Your task to perform on an android device: find snoozed emails in the gmail app Image 0: 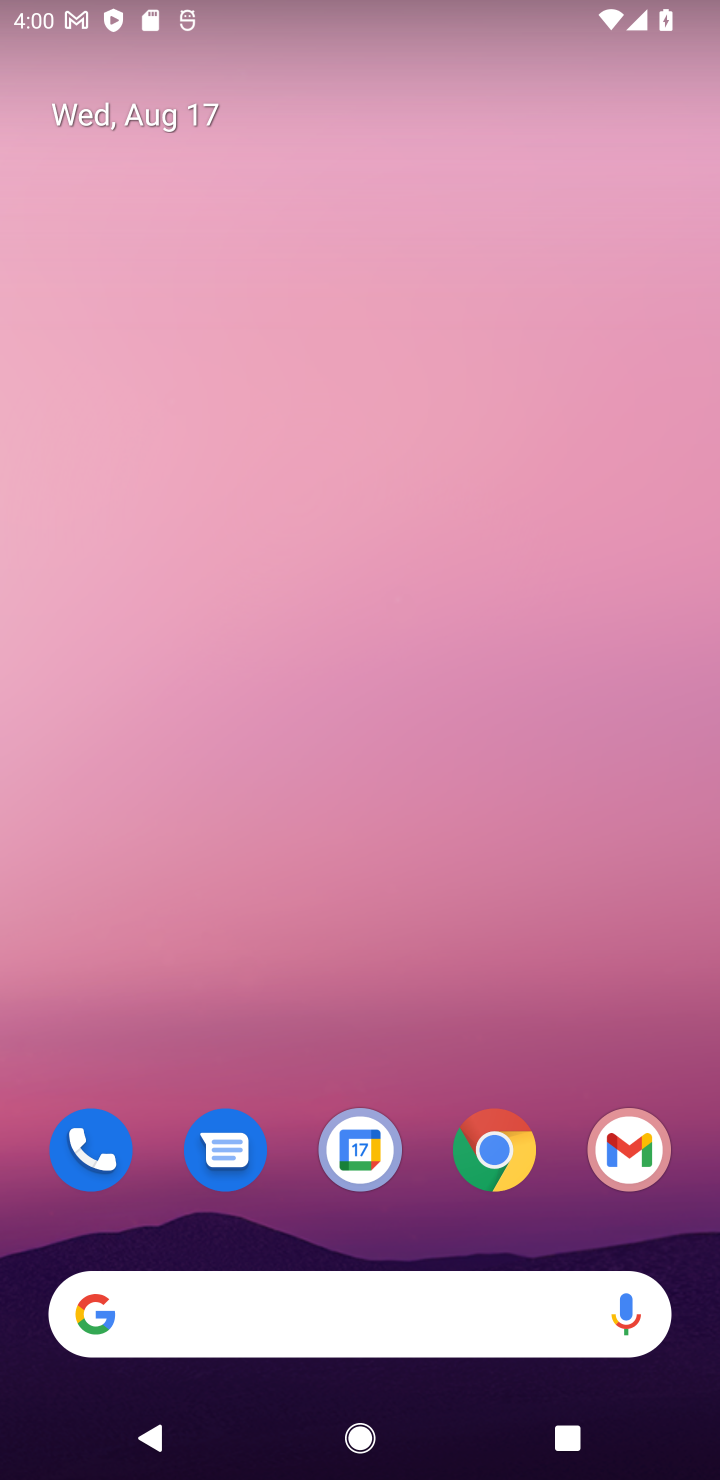
Step 0: drag from (601, 1227) to (334, 23)
Your task to perform on an android device: find snoozed emails in the gmail app Image 1: 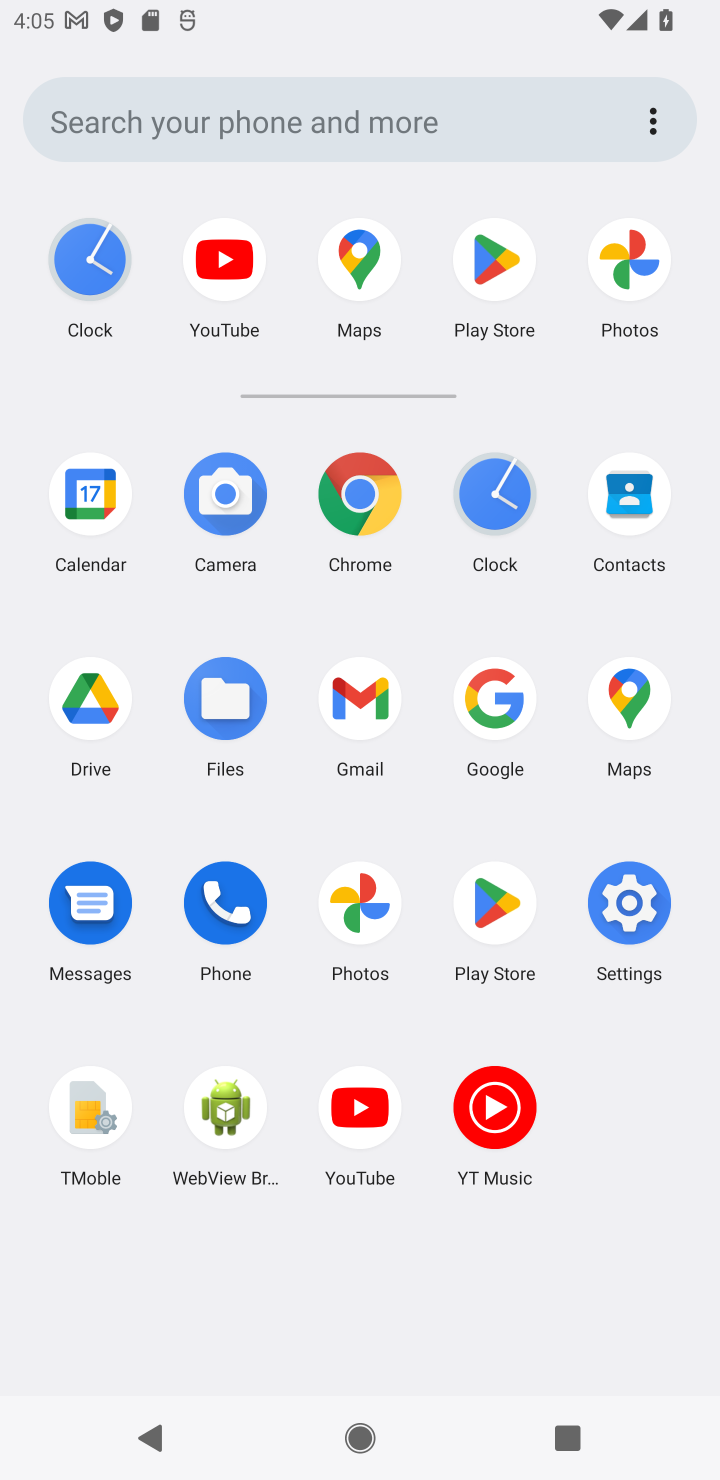
Step 1: click (378, 693)
Your task to perform on an android device: find snoozed emails in the gmail app Image 2: 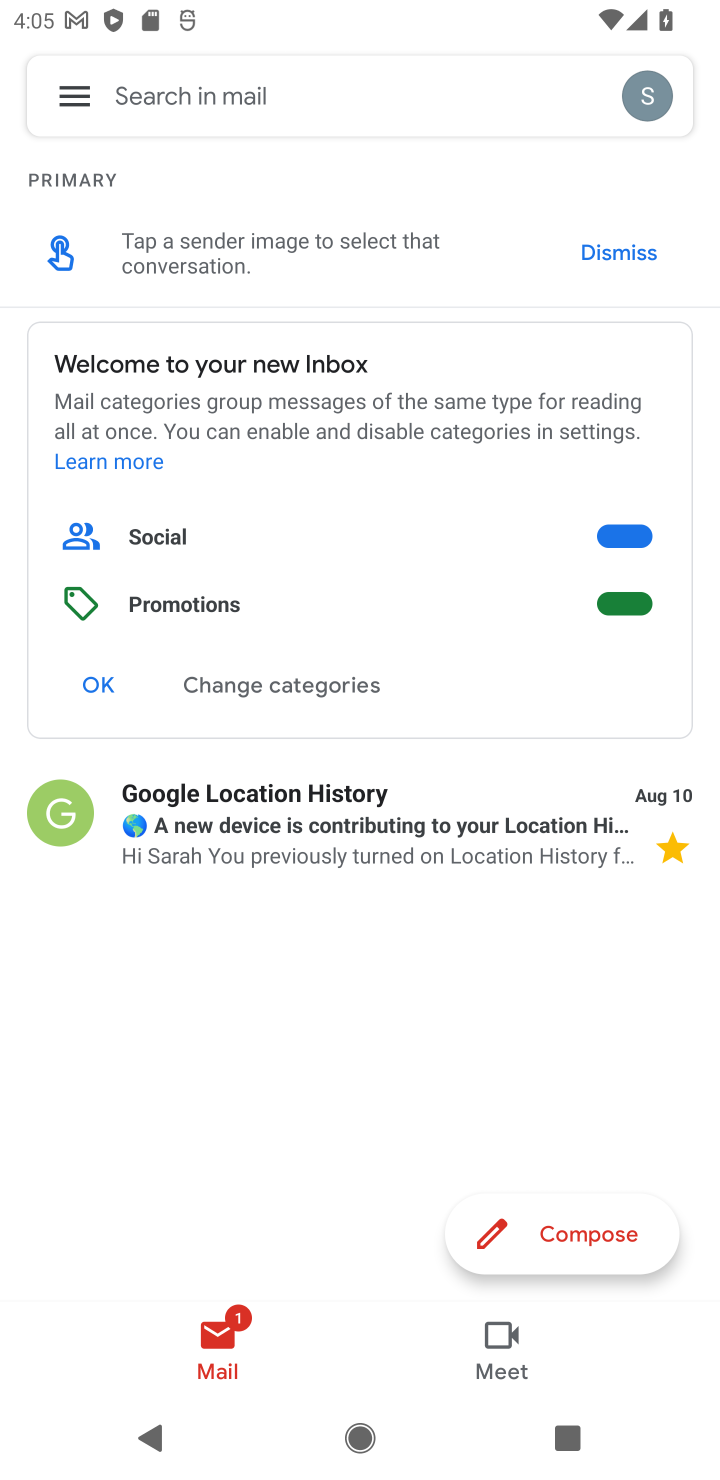
Step 2: task complete